Your task to perform on an android device: change notifications settings Image 0: 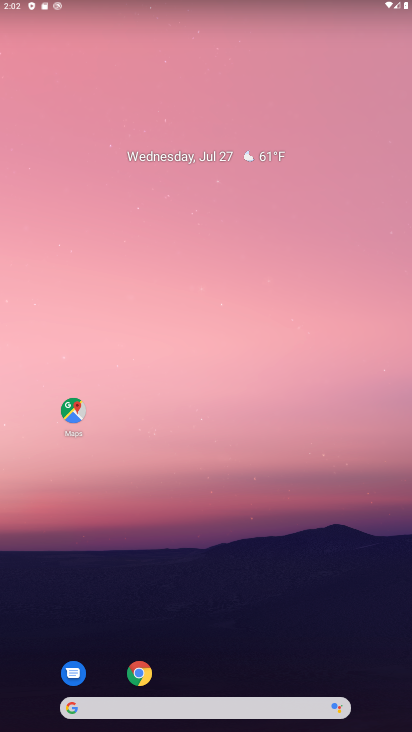
Step 0: drag from (213, 671) to (170, 90)
Your task to perform on an android device: change notifications settings Image 1: 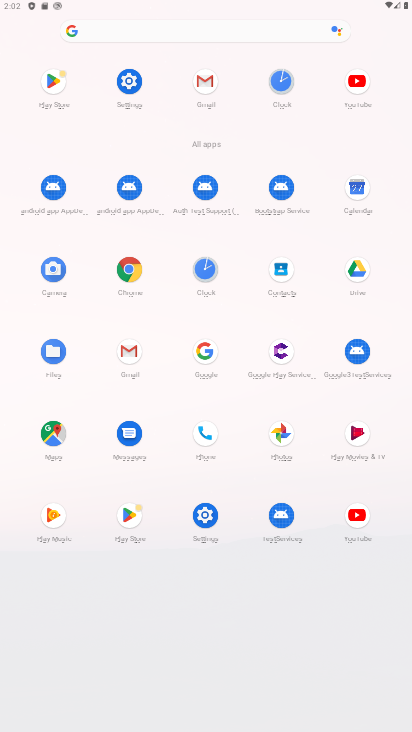
Step 1: click (138, 73)
Your task to perform on an android device: change notifications settings Image 2: 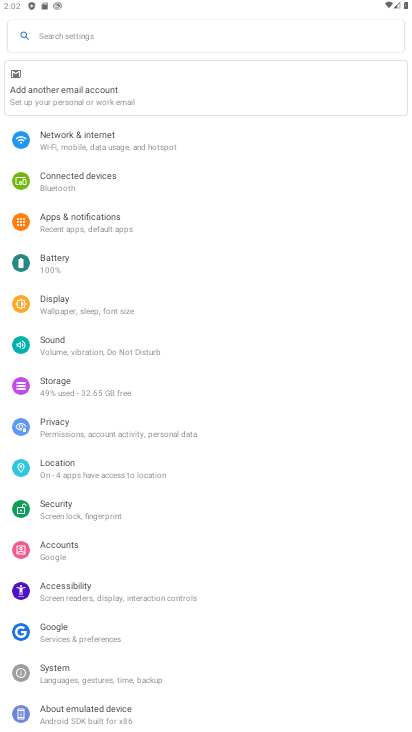
Step 2: click (101, 235)
Your task to perform on an android device: change notifications settings Image 3: 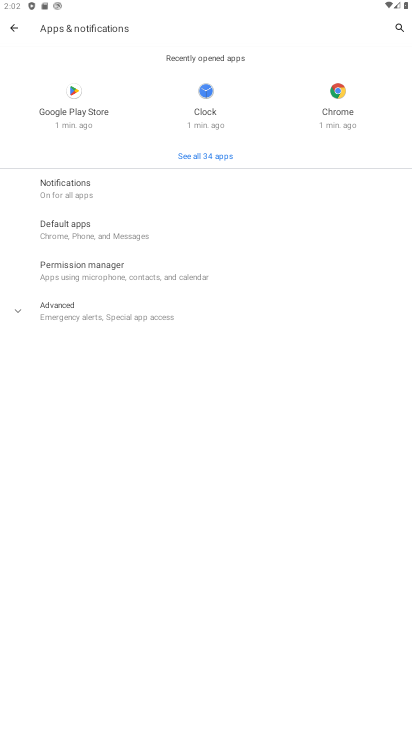
Step 3: task complete